Your task to perform on an android device: add a contact in the contacts app Image 0: 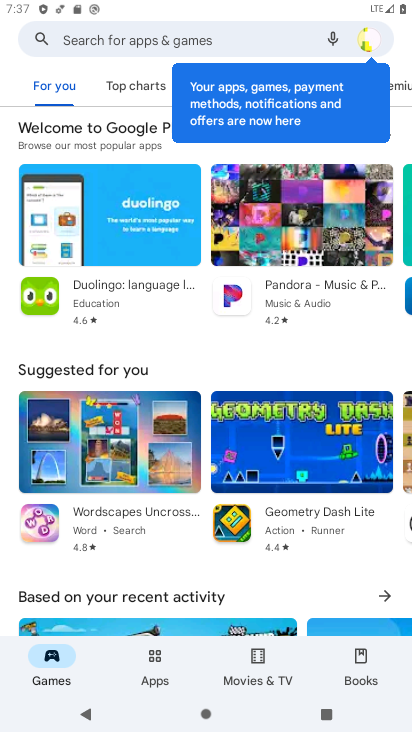
Step 0: press home button
Your task to perform on an android device: add a contact in the contacts app Image 1: 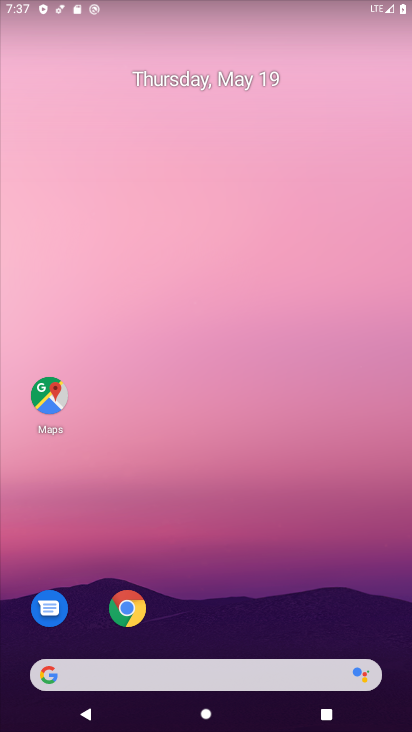
Step 1: drag from (385, 605) to (371, 43)
Your task to perform on an android device: add a contact in the contacts app Image 2: 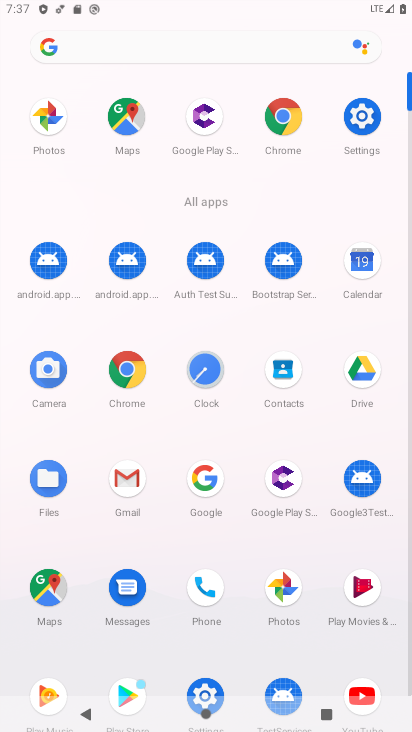
Step 2: click (276, 368)
Your task to perform on an android device: add a contact in the contacts app Image 3: 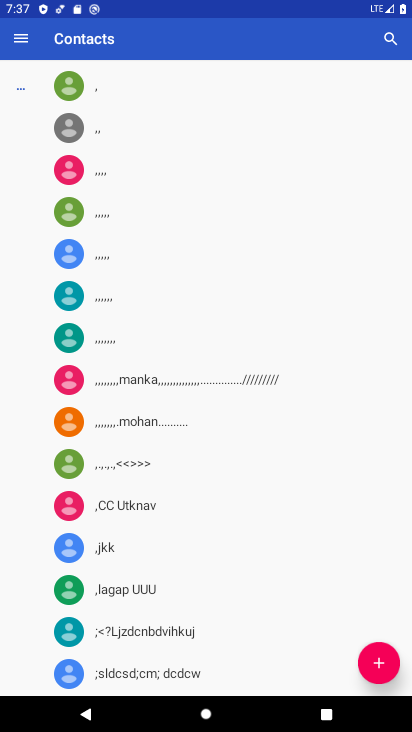
Step 3: click (384, 662)
Your task to perform on an android device: add a contact in the contacts app Image 4: 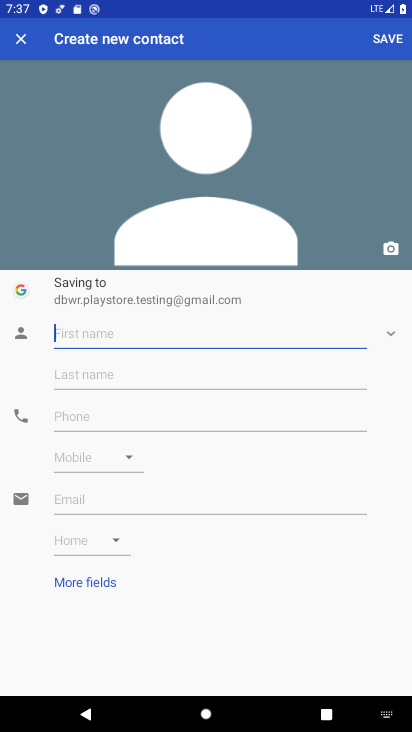
Step 4: type "gfgfhbhbh"
Your task to perform on an android device: add a contact in the contacts app Image 5: 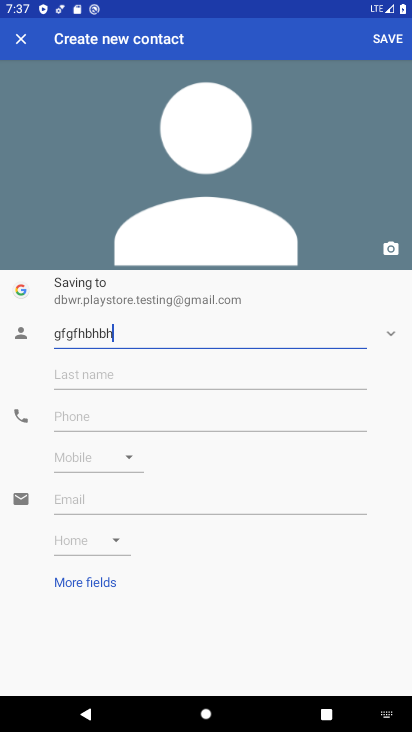
Step 5: click (201, 380)
Your task to perform on an android device: add a contact in the contacts app Image 6: 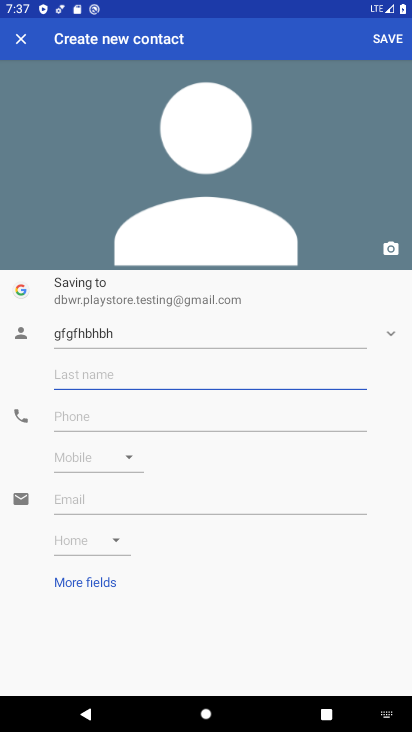
Step 6: type "yhbnjj"
Your task to perform on an android device: add a contact in the contacts app Image 7: 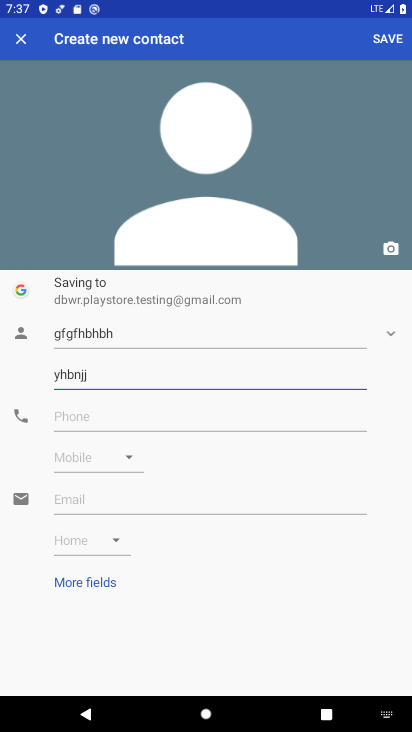
Step 7: click (214, 413)
Your task to perform on an android device: add a contact in the contacts app Image 8: 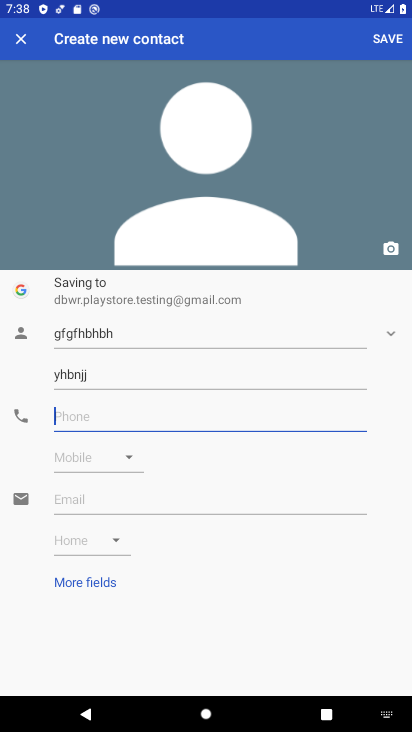
Step 8: type "67864323456"
Your task to perform on an android device: add a contact in the contacts app Image 9: 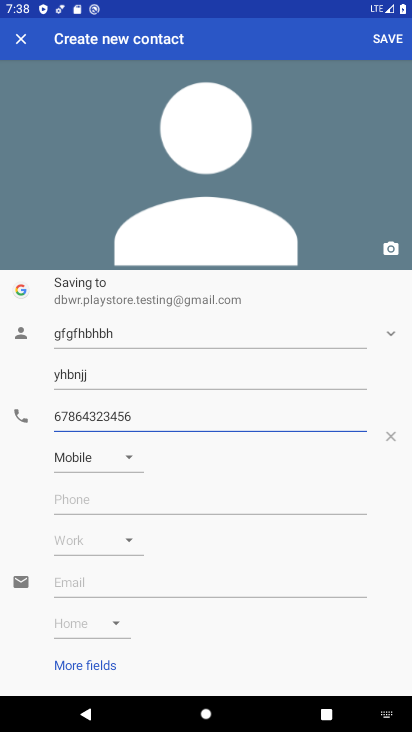
Step 9: click (386, 45)
Your task to perform on an android device: add a contact in the contacts app Image 10: 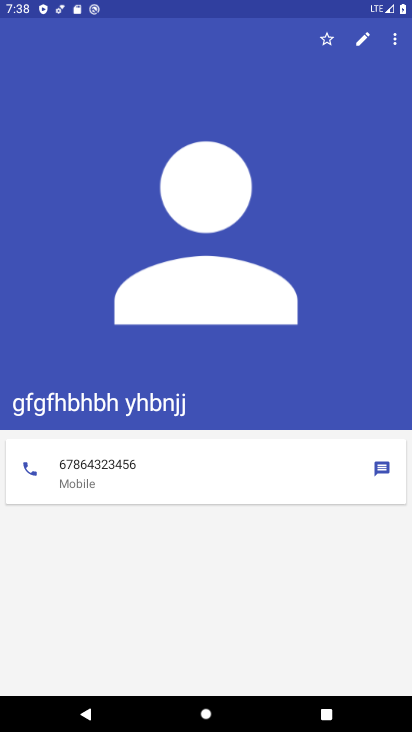
Step 10: task complete